Your task to perform on an android device: Open Maps and search for coffee Image 0: 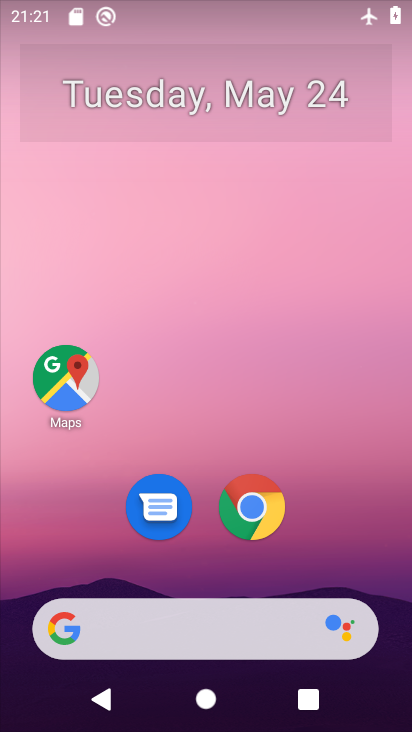
Step 0: drag from (199, 564) to (211, 184)
Your task to perform on an android device: Open Maps and search for coffee Image 1: 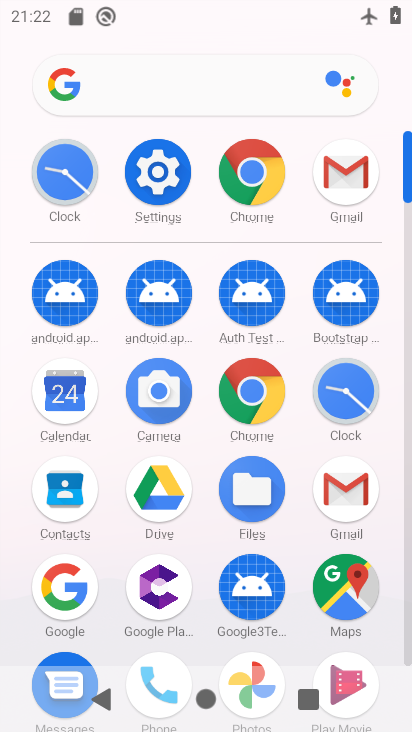
Step 1: click (340, 581)
Your task to perform on an android device: Open Maps and search for coffee Image 2: 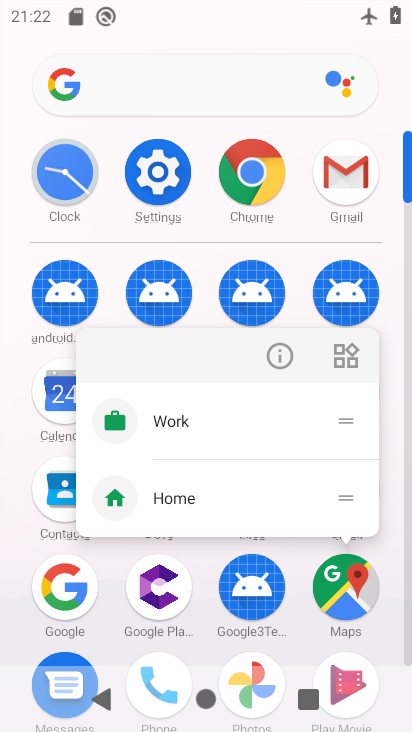
Step 2: click (279, 360)
Your task to perform on an android device: Open Maps and search for coffee Image 3: 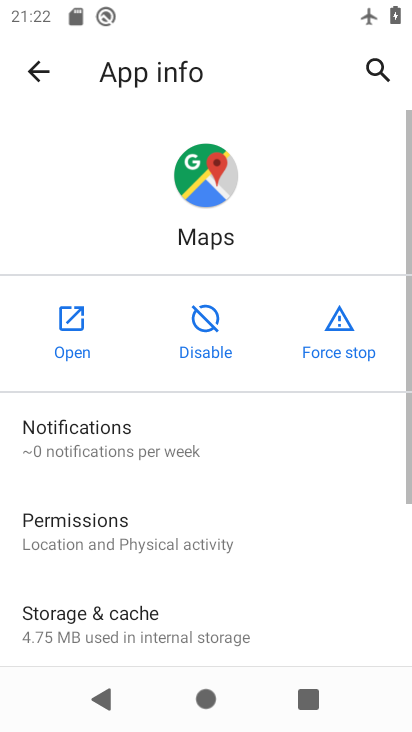
Step 3: click (66, 319)
Your task to perform on an android device: Open Maps and search for coffee Image 4: 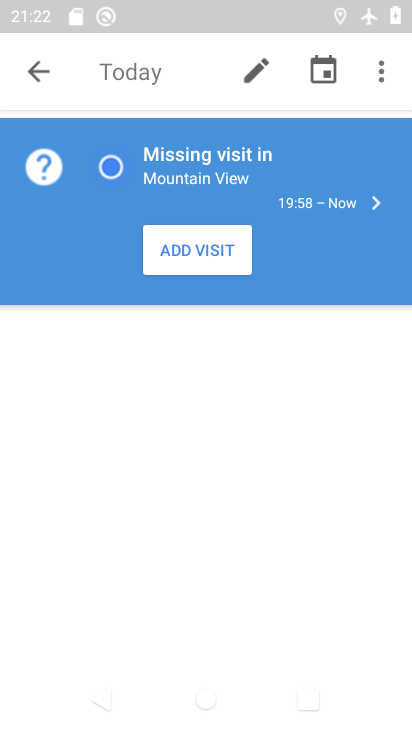
Step 4: click (34, 79)
Your task to perform on an android device: Open Maps and search for coffee Image 5: 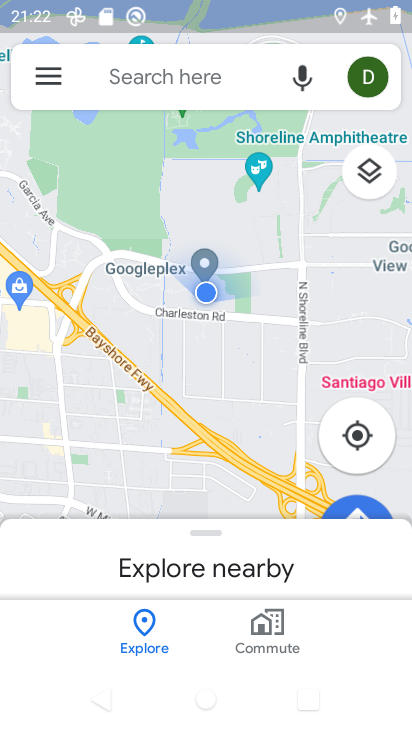
Step 5: click (161, 73)
Your task to perform on an android device: Open Maps and search for coffee Image 6: 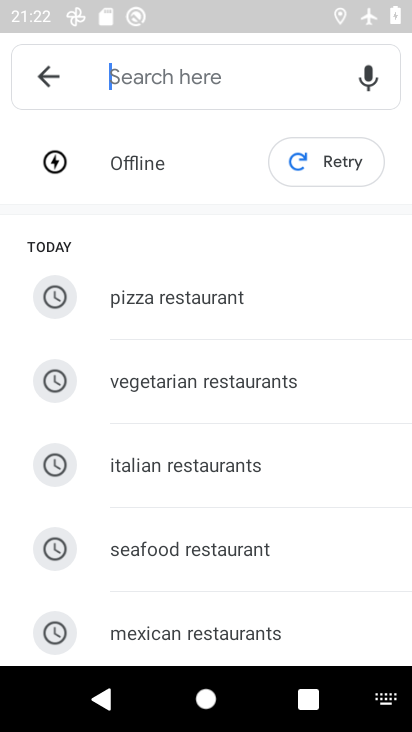
Step 6: type "coffee"
Your task to perform on an android device: Open Maps and search for coffee Image 7: 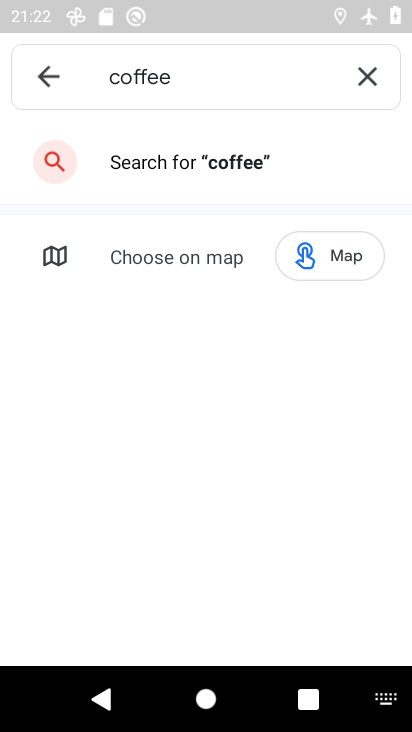
Step 7: click (166, 148)
Your task to perform on an android device: Open Maps and search for coffee Image 8: 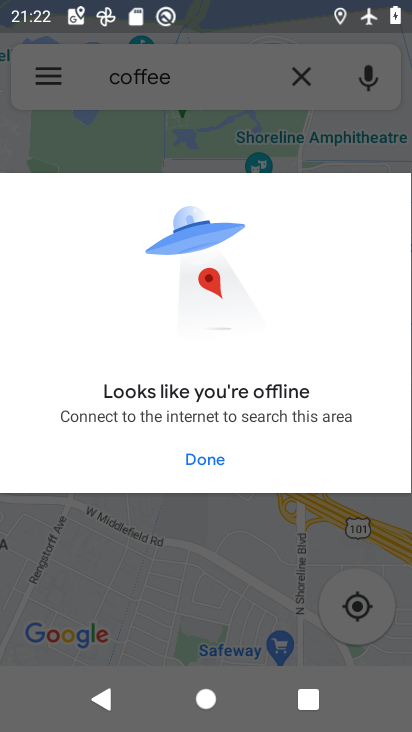
Step 8: click (204, 457)
Your task to perform on an android device: Open Maps and search for coffee Image 9: 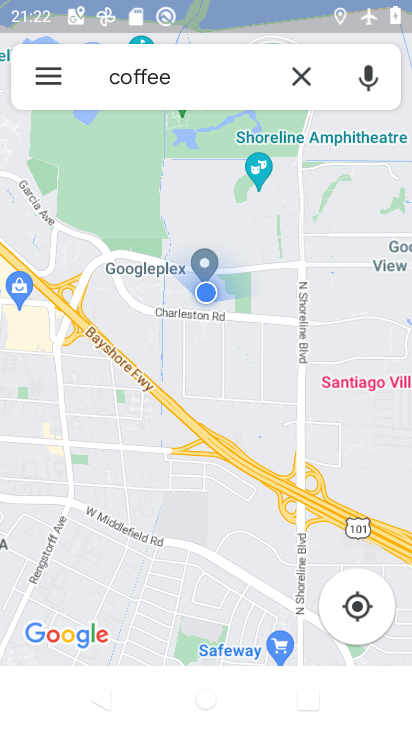
Step 9: task complete